Your task to perform on an android device: delete browsing data in the chrome app Image 0: 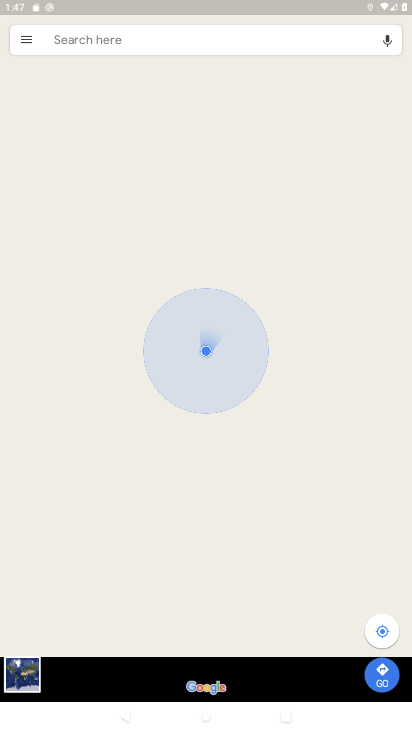
Step 0: press home button
Your task to perform on an android device: delete browsing data in the chrome app Image 1: 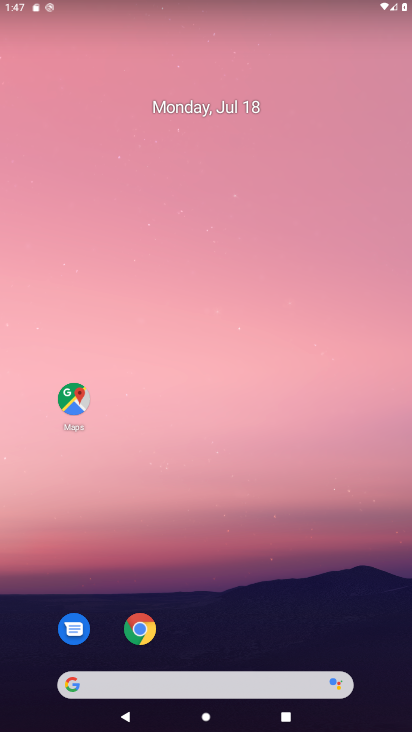
Step 1: click (139, 635)
Your task to perform on an android device: delete browsing data in the chrome app Image 2: 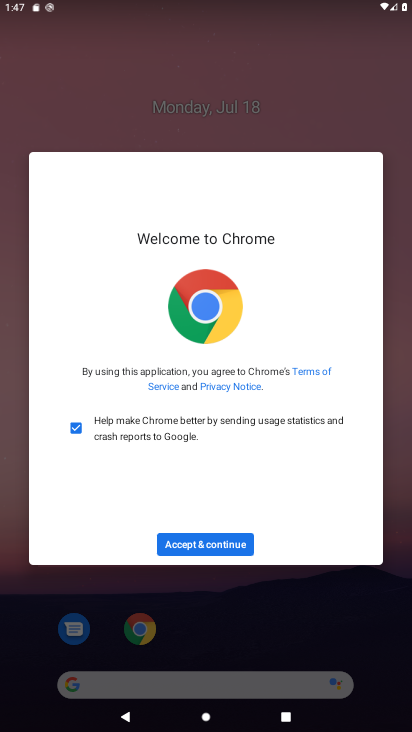
Step 2: click (236, 536)
Your task to perform on an android device: delete browsing data in the chrome app Image 3: 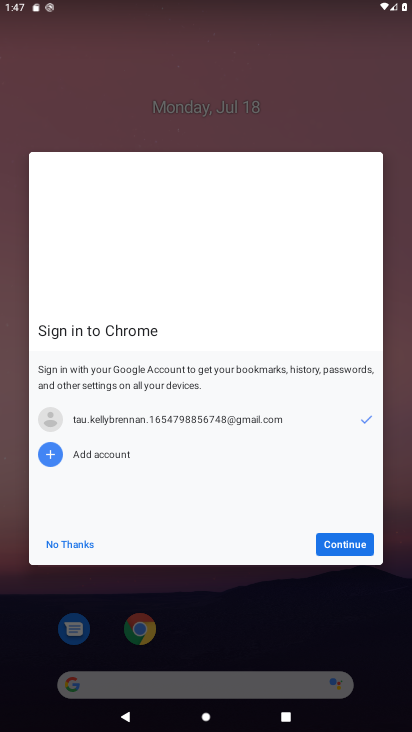
Step 3: click (326, 544)
Your task to perform on an android device: delete browsing data in the chrome app Image 4: 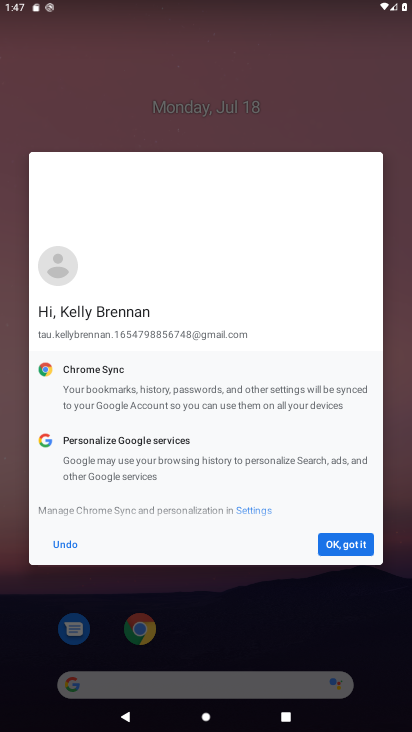
Step 4: click (326, 544)
Your task to perform on an android device: delete browsing data in the chrome app Image 5: 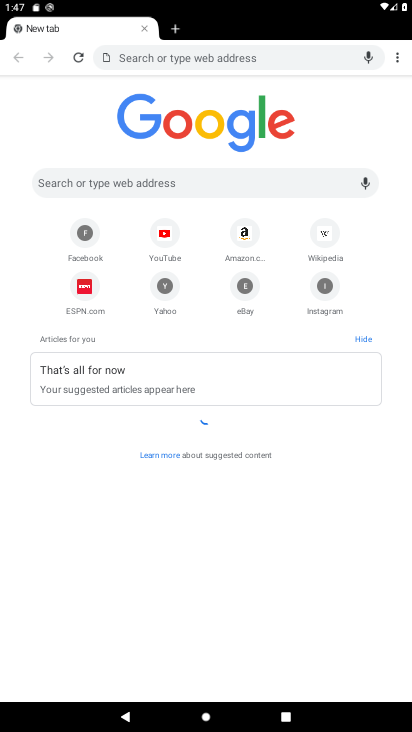
Step 5: click (399, 61)
Your task to perform on an android device: delete browsing data in the chrome app Image 6: 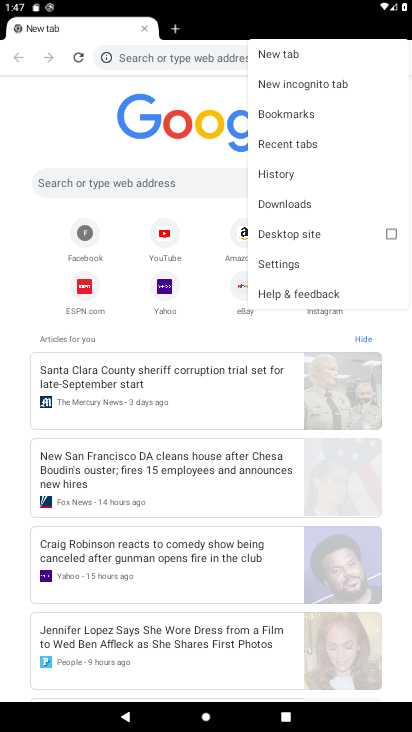
Step 6: click (297, 173)
Your task to perform on an android device: delete browsing data in the chrome app Image 7: 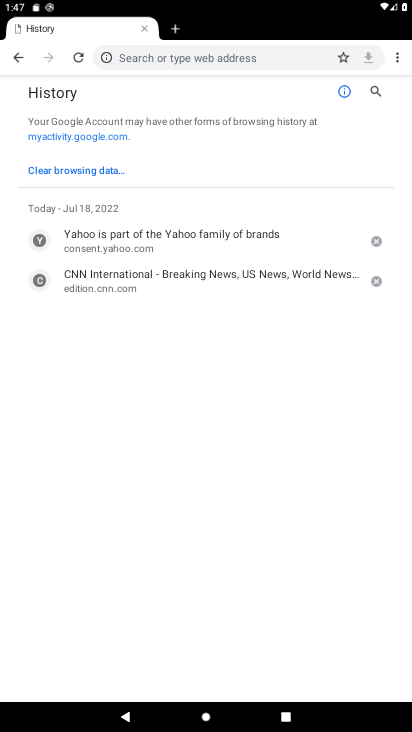
Step 7: click (94, 170)
Your task to perform on an android device: delete browsing data in the chrome app Image 8: 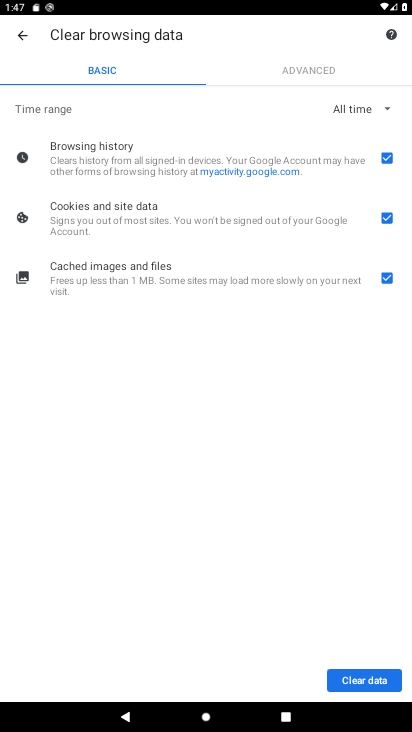
Step 8: click (350, 670)
Your task to perform on an android device: delete browsing data in the chrome app Image 9: 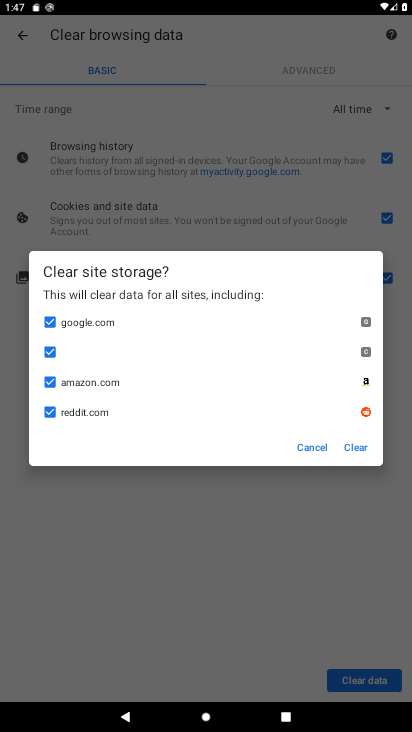
Step 9: click (350, 448)
Your task to perform on an android device: delete browsing data in the chrome app Image 10: 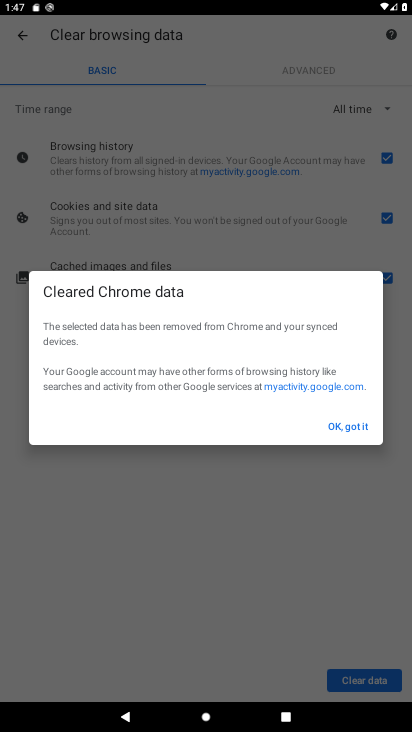
Step 10: click (364, 421)
Your task to perform on an android device: delete browsing data in the chrome app Image 11: 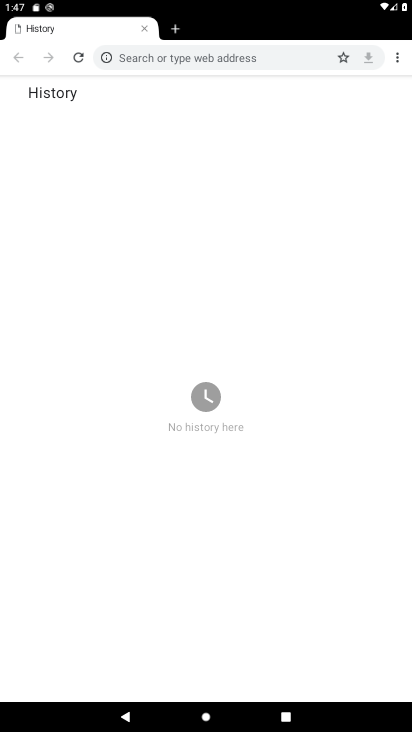
Step 11: task complete